Your task to perform on an android device: open the mobile data screen to see how much data has been used Image 0: 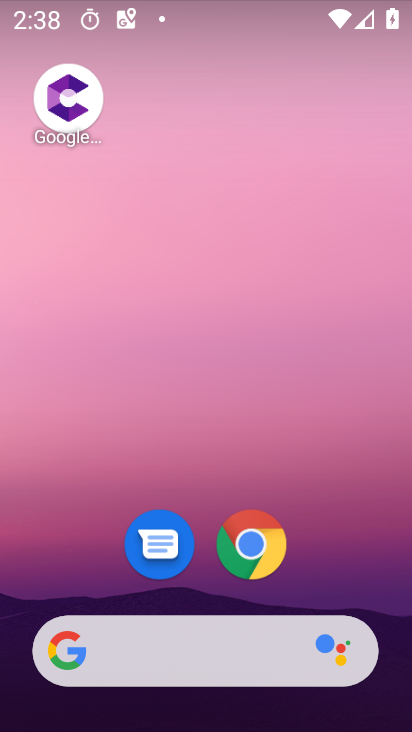
Step 0: drag from (202, 724) to (220, 213)
Your task to perform on an android device: open the mobile data screen to see how much data has been used Image 1: 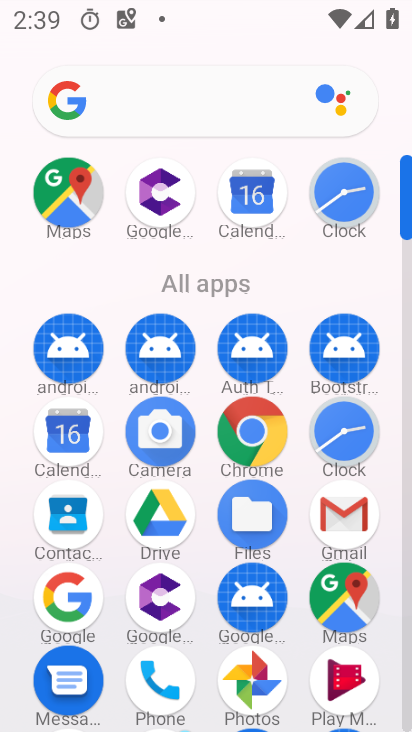
Step 1: drag from (190, 624) to (190, 192)
Your task to perform on an android device: open the mobile data screen to see how much data has been used Image 2: 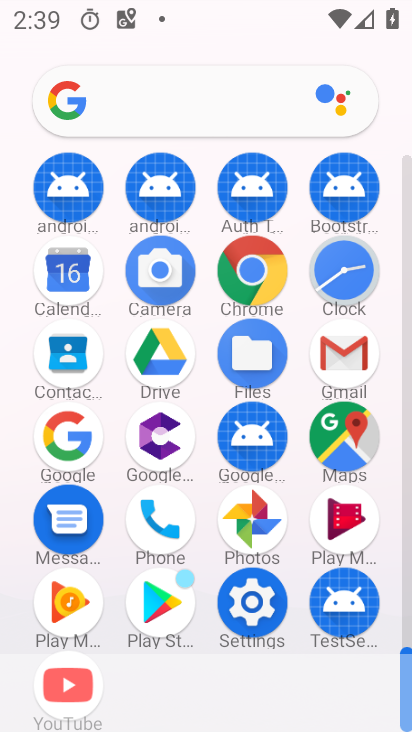
Step 2: click (249, 606)
Your task to perform on an android device: open the mobile data screen to see how much data has been used Image 3: 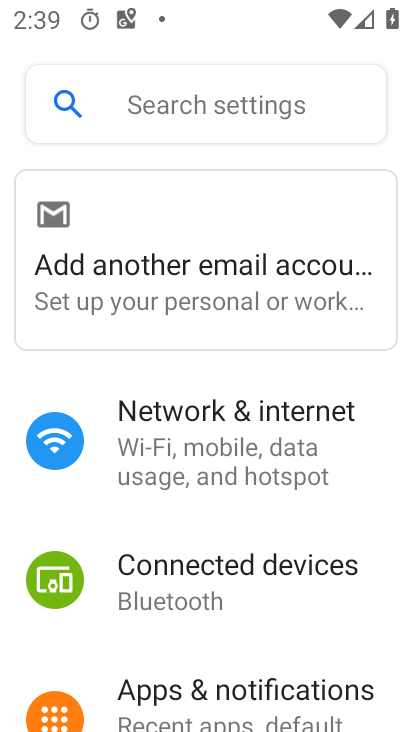
Step 3: drag from (236, 652) to (251, 412)
Your task to perform on an android device: open the mobile data screen to see how much data has been used Image 4: 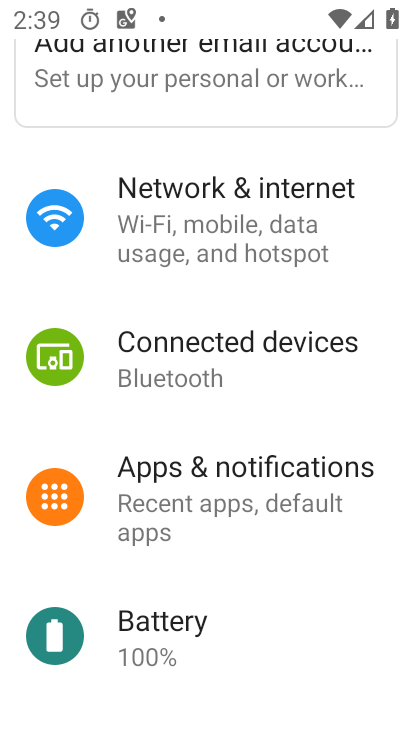
Step 4: click (164, 205)
Your task to perform on an android device: open the mobile data screen to see how much data has been used Image 5: 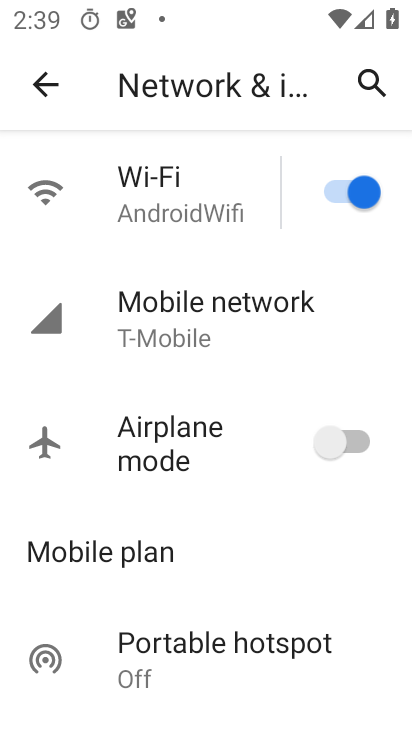
Step 5: drag from (198, 664) to (209, 591)
Your task to perform on an android device: open the mobile data screen to see how much data has been used Image 6: 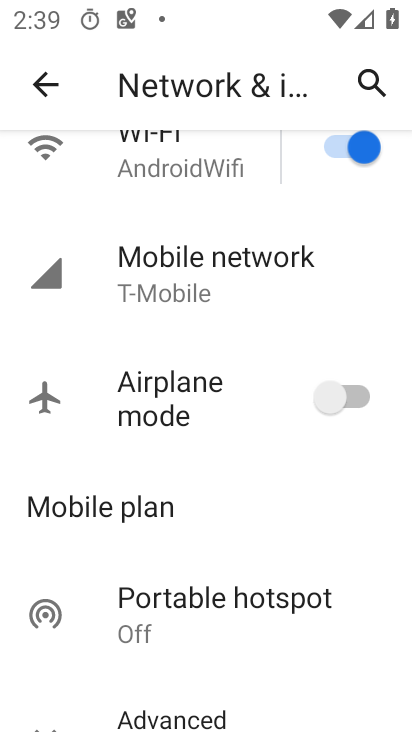
Step 6: click (172, 267)
Your task to perform on an android device: open the mobile data screen to see how much data has been used Image 7: 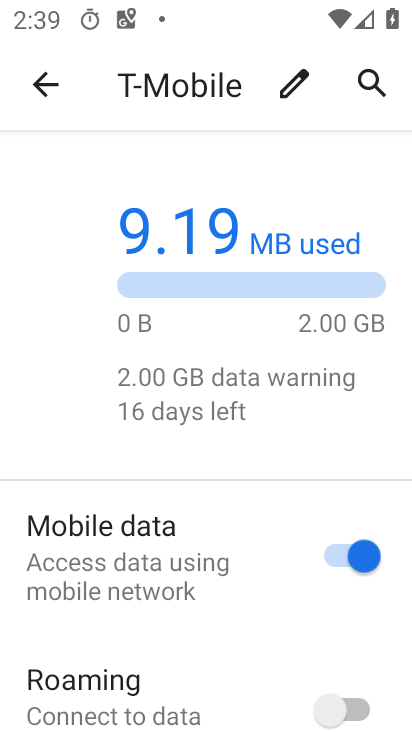
Step 7: drag from (192, 656) to (190, 270)
Your task to perform on an android device: open the mobile data screen to see how much data has been used Image 8: 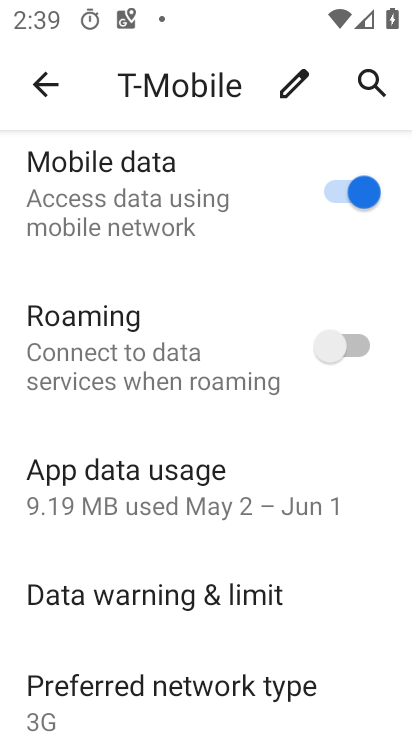
Step 8: click (138, 481)
Your task to perform on an android device: open the mobile data screen to see how much data has been used Image 9: 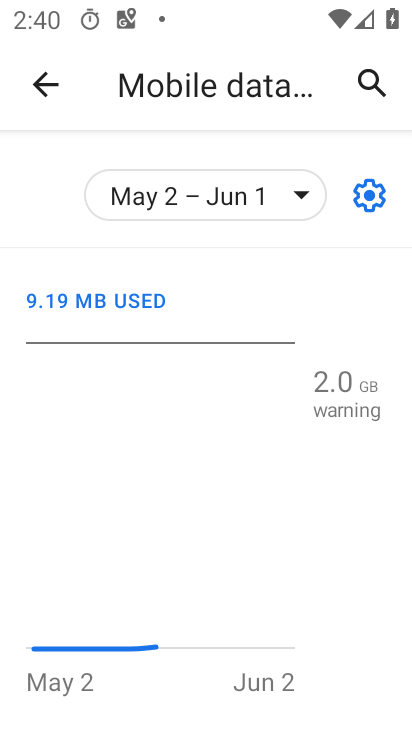
Step 9: task complete